Your task to perform on an android device: Go to CNN.com Image 0: 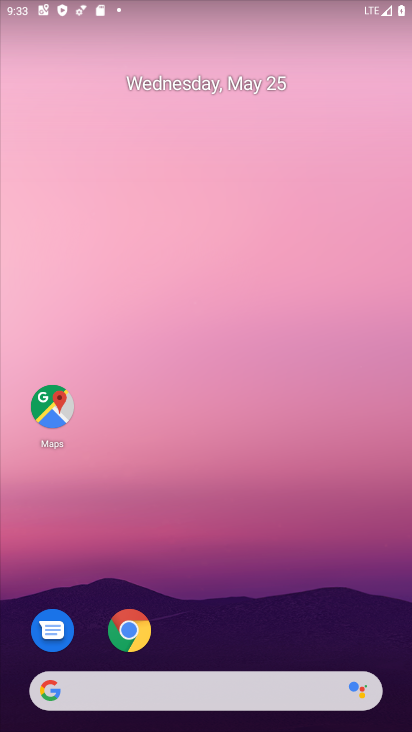
Step 0: click (122, 639)
Your task to perform on an android device: Go to CNN.com Image 1: 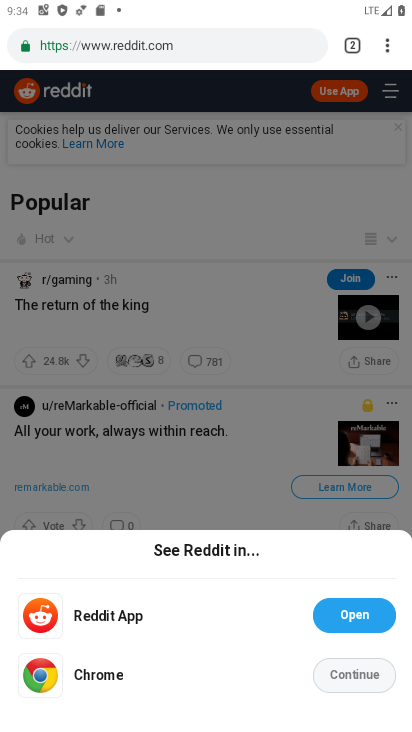
Step 1: click (164, 300)
Your task to perform on an android device: Go to CNN.com Image 2: 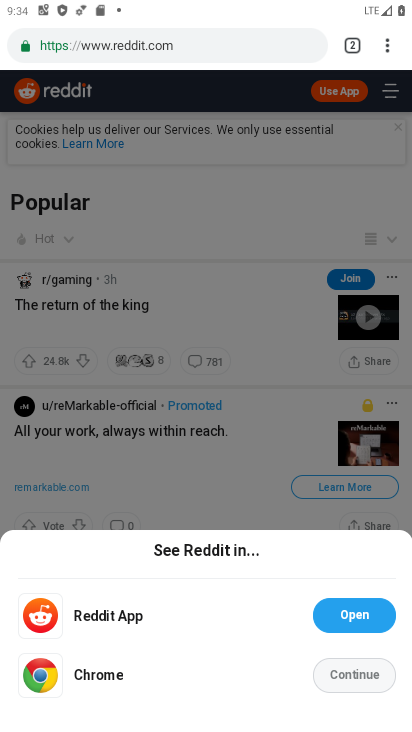
Step 2: click (358, 40)
Your task to perform on an android device: Go to CNN.com Image 3: 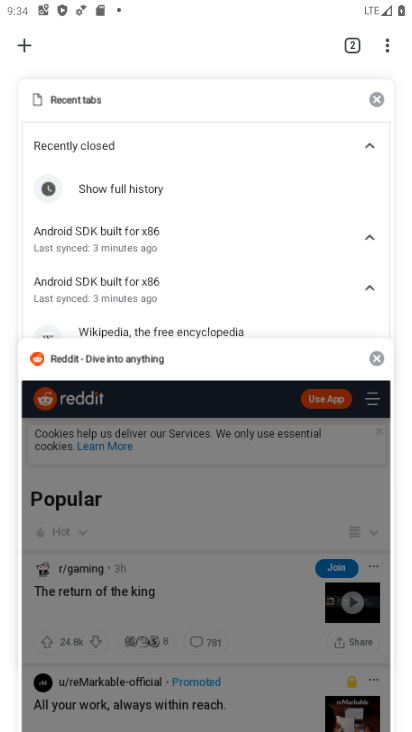
Step 3: click (83, 97)
Your task to perform on an android device: Go to CNN.com Image 4: 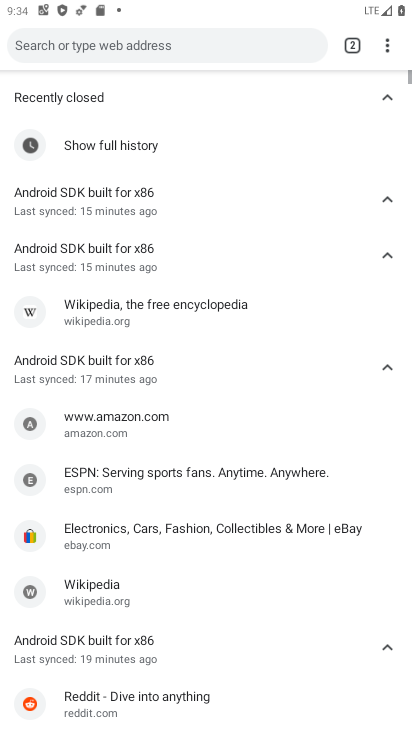
Step 4: click (358, 46)
Your task to perform on an android device: Go to CNN.com Image 5: 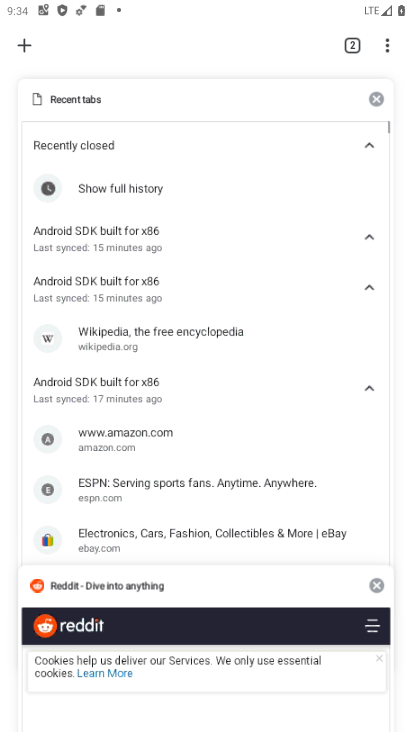
Step 5: click (10, 45)
Your task to perform on an android device: Go to CNN.com Image 6: 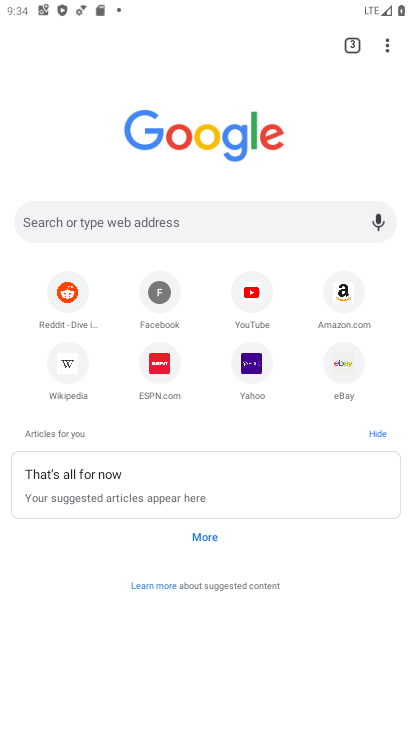
Step 6: click (140, 221)
Your task to perform on an android device: Go to CNN.com Image 7: 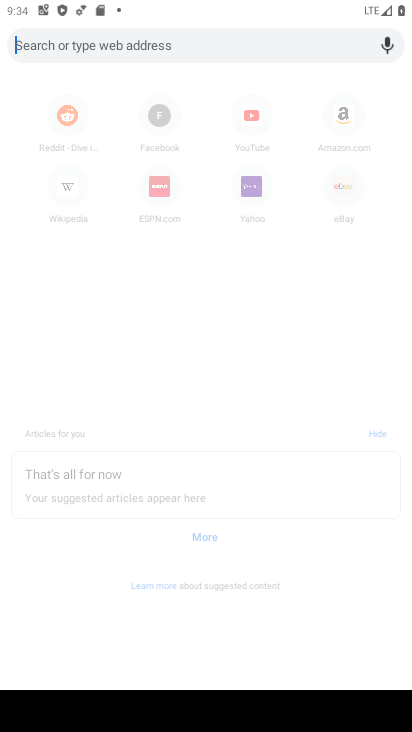
Step 7: type "cnn.com"
Your task to perform on an android device: Go to CNN.com Image 8: 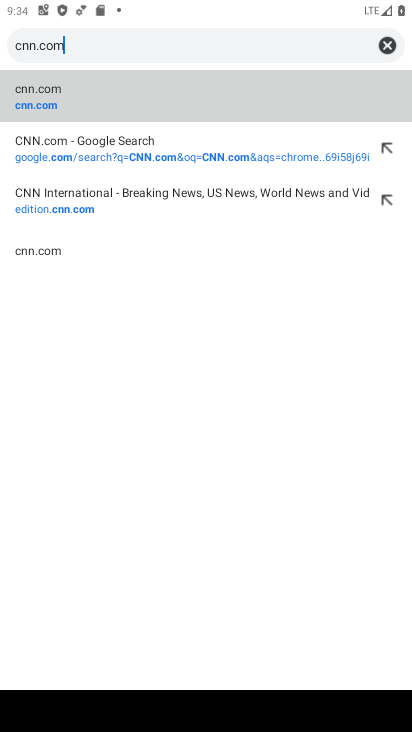
Step 8: click (125, 98)
Your task to perform on an android device: Go to CNN.com Image 9: 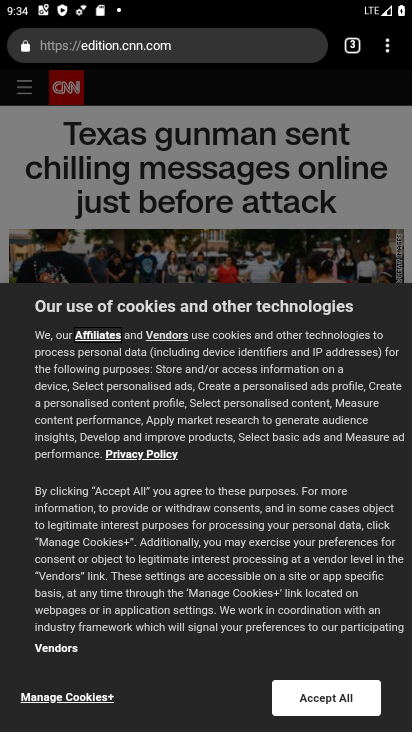
Step 9: task complete